Your task to perform on an android device: turn off wifi Image 0: 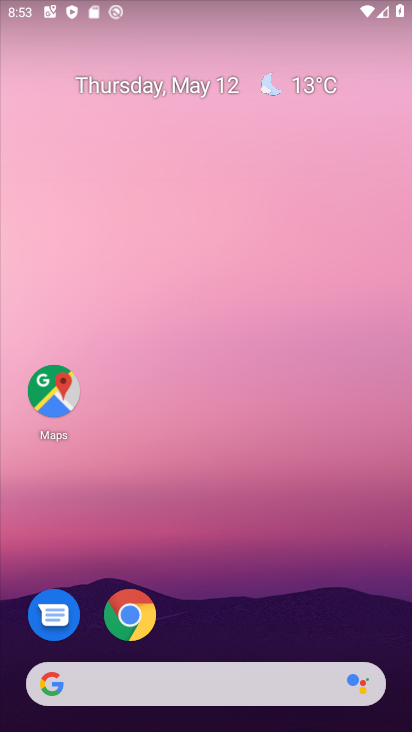
Step 0: drag from (196, 636) to (221, 4)
Your task to perform on an android device: turn off wifi Image 1: 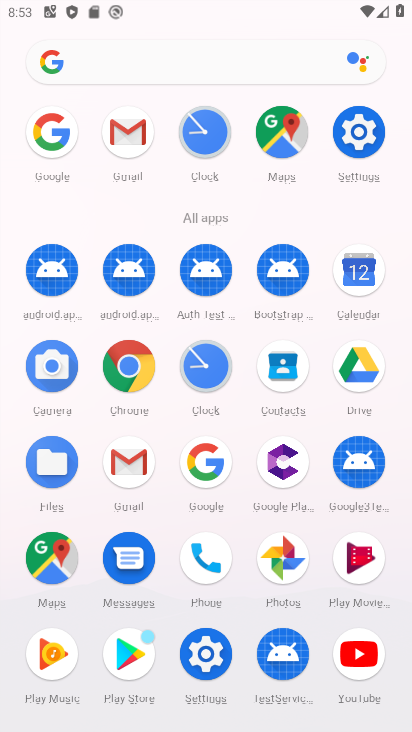
Step 1: click (353, 132)
Your task to perform on an android device: turn off wifi Image 2: 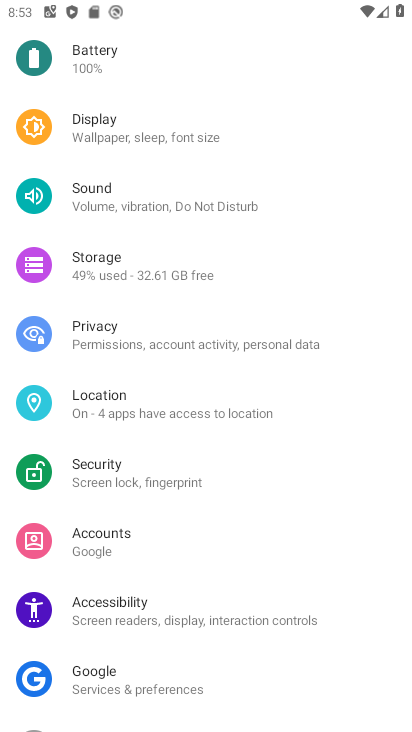
Step 2: drag from (207, 145) to (189, 589)
Your task to perform on an android device: turn off wifi Image 3: 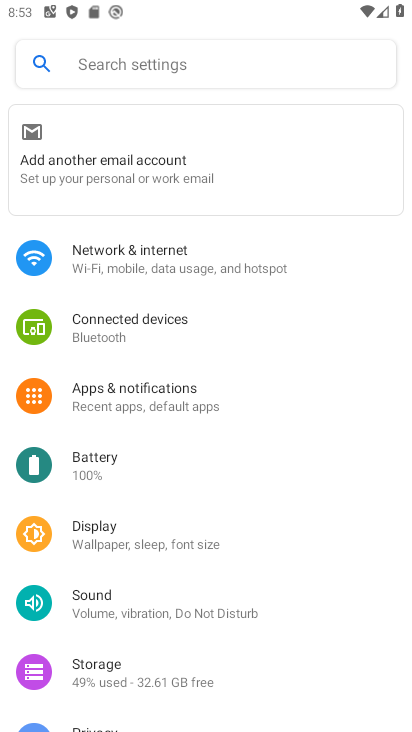
Step 3: click (143, 264)
Your task to perform on an android device: turn off wifi Image 4: 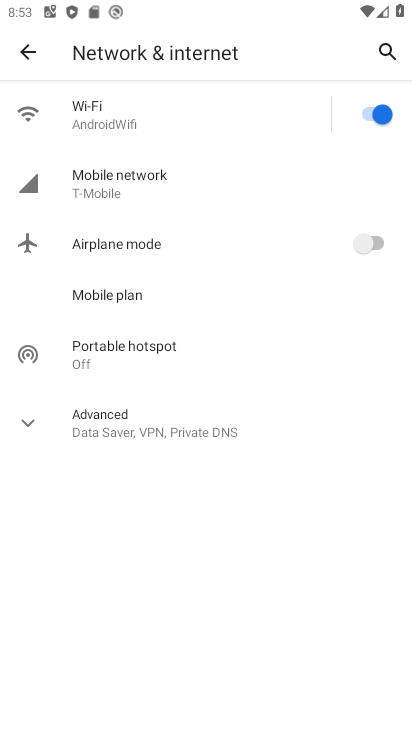
Step 4: click (366, 110)
Your task to perform on an android device: turn off wifi Image 5: 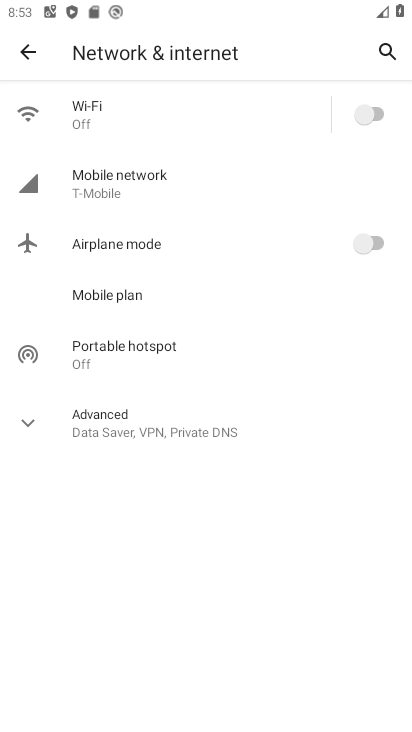
Step 5: task complete